Your task to perform on an android device: Search for vegetarian restaurants on Maps Image 0: 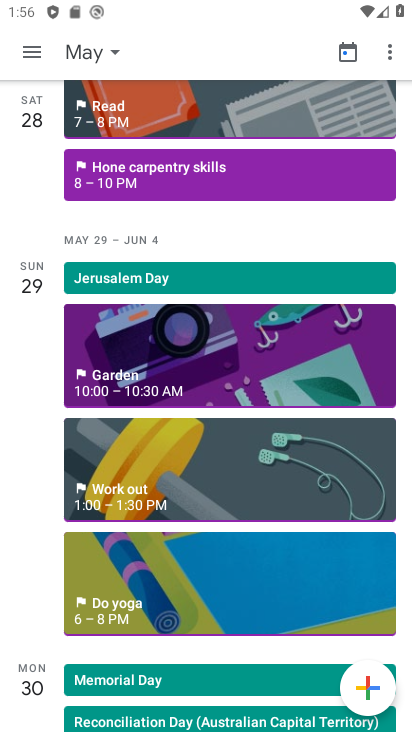
Step 0: press home button
Your task to perform on an android device: Search for vegetarian restaurants on Maps Image 1: 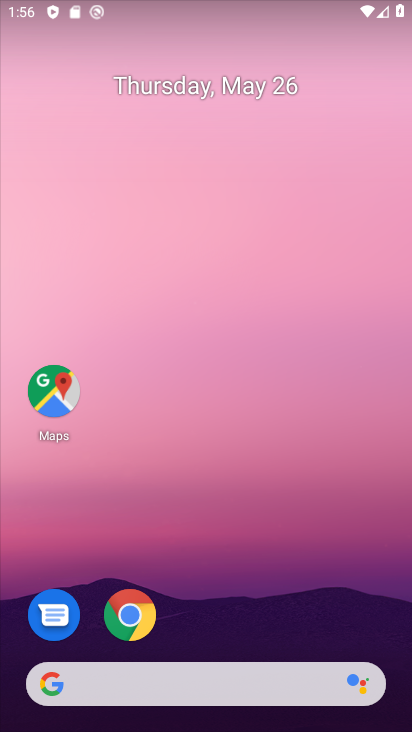
Step 1: click (49, 384)
Your task to perform on an android device: Search for vegetarian restaurants on Maps Image 2: 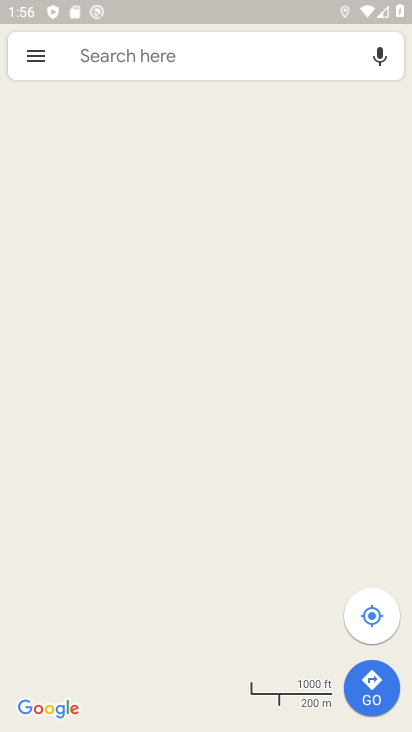
Step 2: click (117, 53)
Your task to perform on an android device: Search for vegetarian restaurants on Maps Image 3: 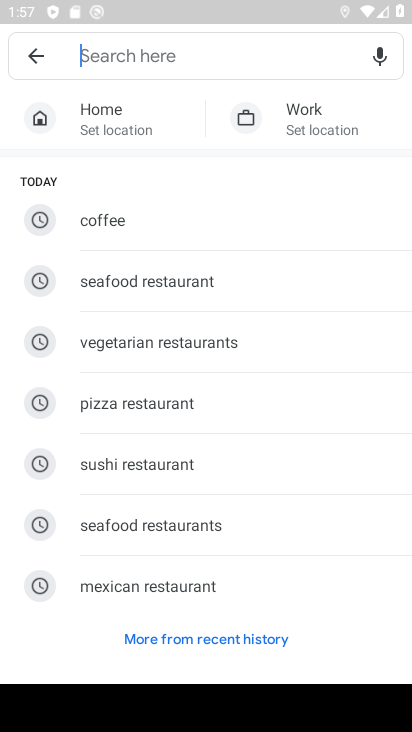
Step 3: type "vegetari"
Your task to perform on an android device: Search for vegetarian restaurants on Maps Image 4: 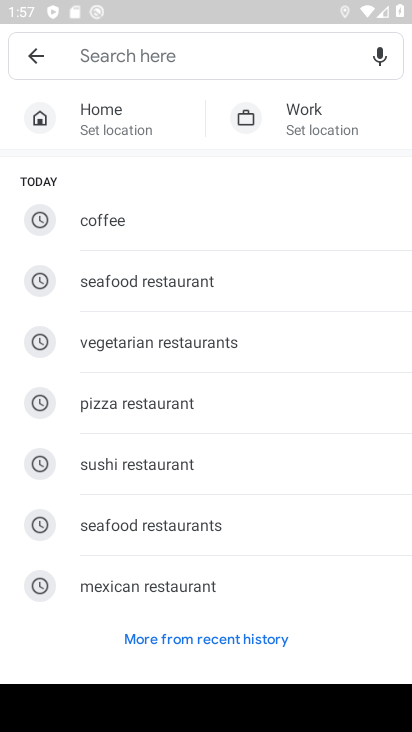
Step 4: click (218, 331)
Your task to perform on an android device: Search for vegetarian restaurants on Maps Image 5: 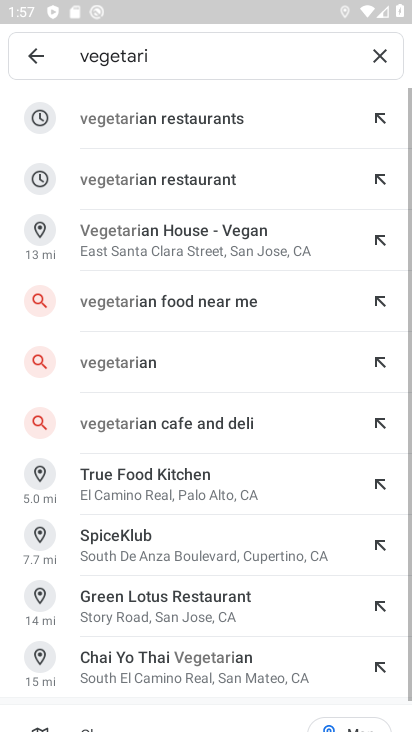
Step 5: click (146, 118)
Your task to perform on an android device: Search for vegetarian restaurants on Maps Image 6: 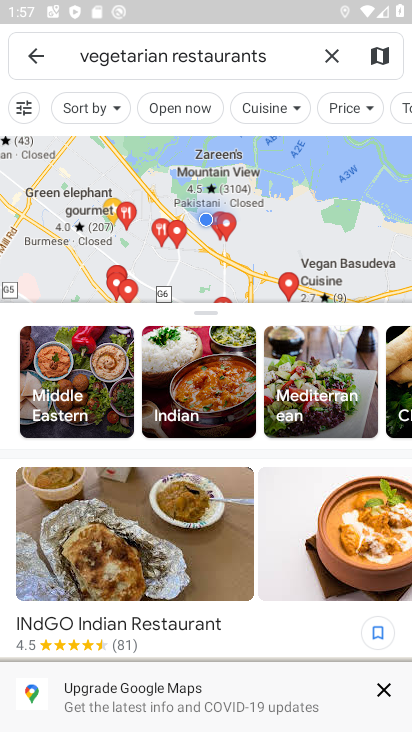
Step 6: task complete